Your task to perform on an android device: turn on data saver in the chrome app Image 0: 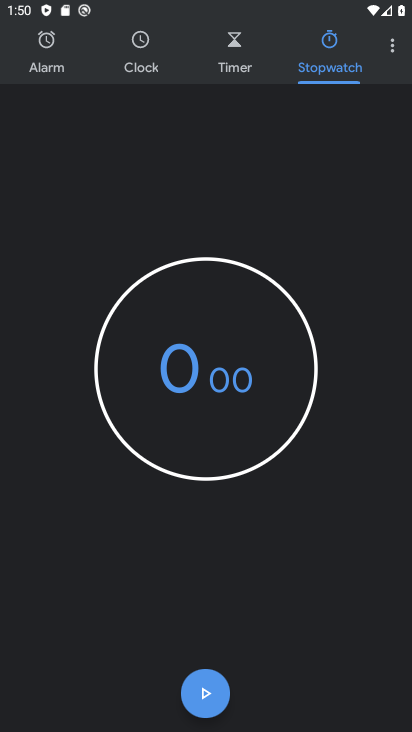
Step 0: press back button
Your task to perform on an android device: turn on data saver in the chrome app Image 1: 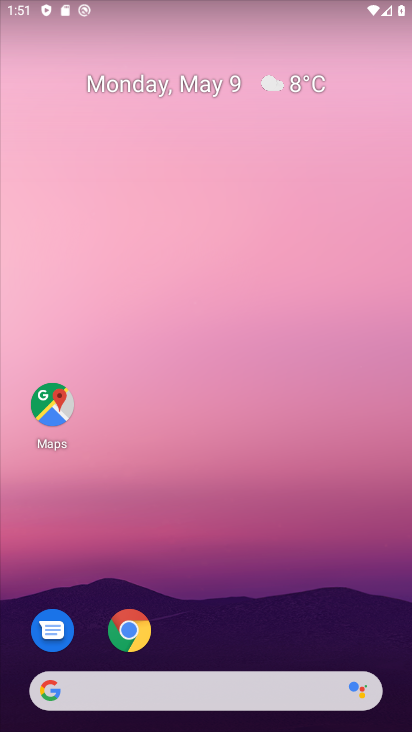
Step 1: click (125, 622)
Your task to perform on an android device: turn on data saver in the chrome app Image 2: 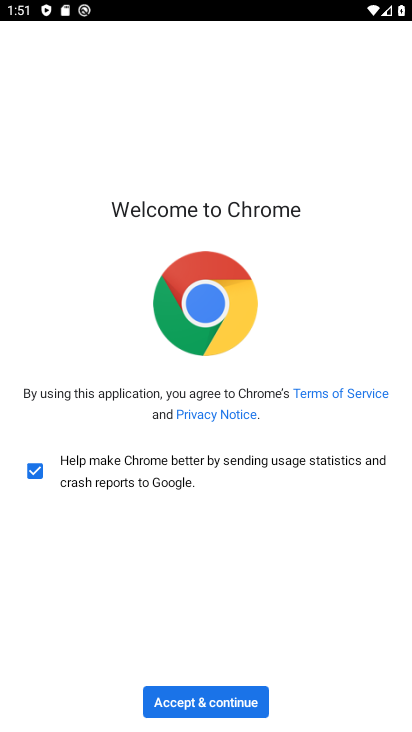
Step 2: click (197, 704)
Your task to perform on an android device: turn on data saver in the chrome app Image 3: 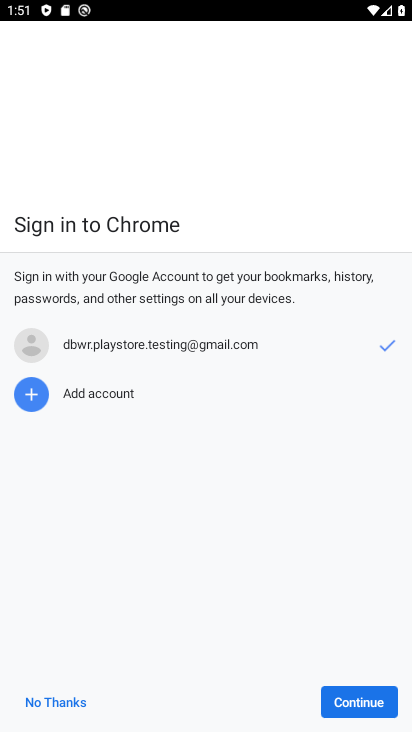
Step 3: click (353, 698)
Your task to perform on an android device: turn on data saver in the chrome app Image 4: 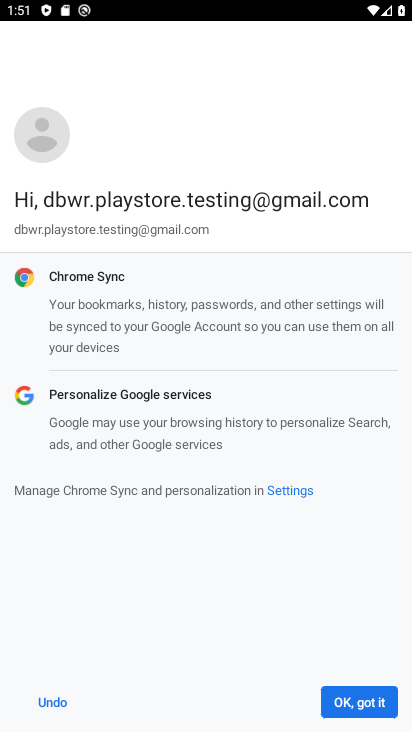
Step 4: click (368, 702)
Your task to perform on an android device: turn on data saver in the chrome app Image 5: 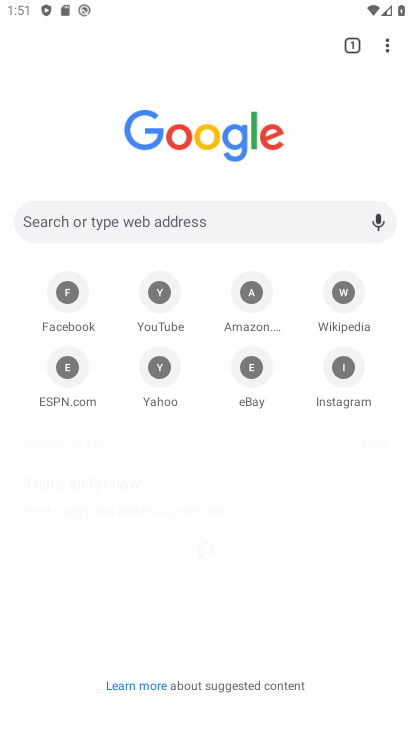
Step 5: drag from (385, 43) to (217, 385)
Your task to perform on an android device: turn on data saver in the chrome app Image 6: 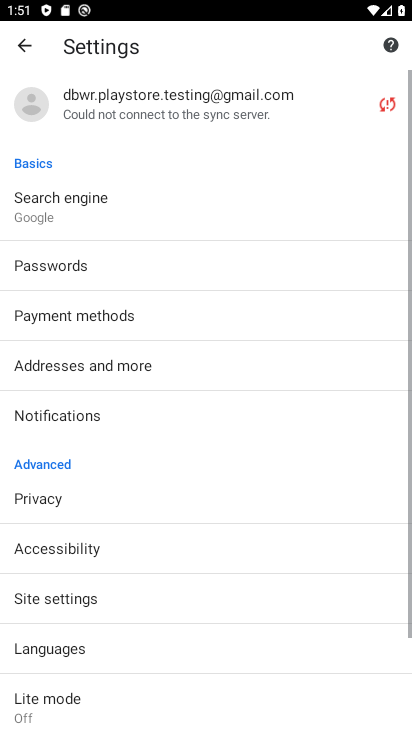
Step 6: drag from (166, 602) to (283, 167)
Your task to perform on an android device: turn on data saver in the chrome app Image 7: 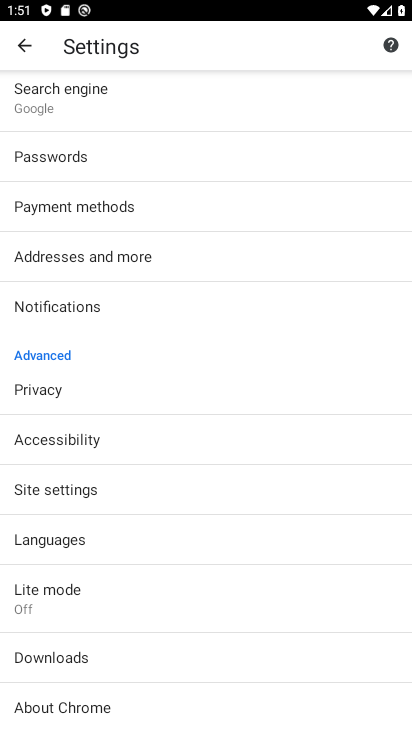
Step 7: click (64, 607)
Your task to perform on an android device: turn on data saver in the chrome app Image 8: 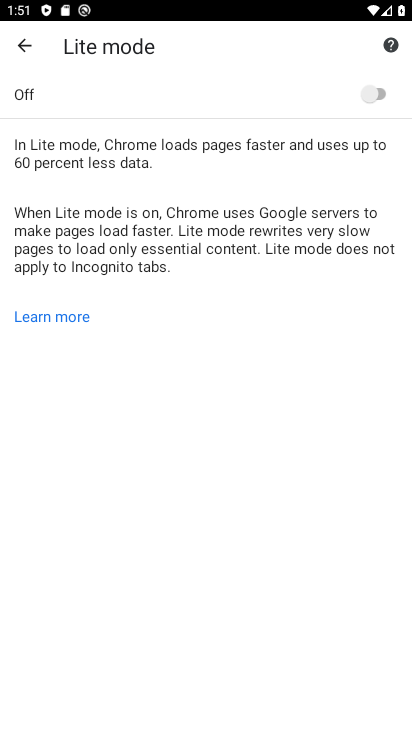
Step 8: click (370, 92)
Your task to perform on an android device: turn on data saver in the chrome app Image 9: 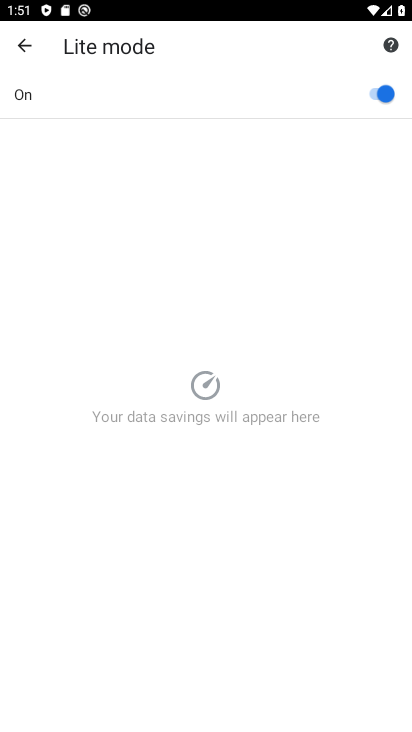
Step 9: task complete